Your task to perform on an android device: move a message to another label in the gmail app Image 0: 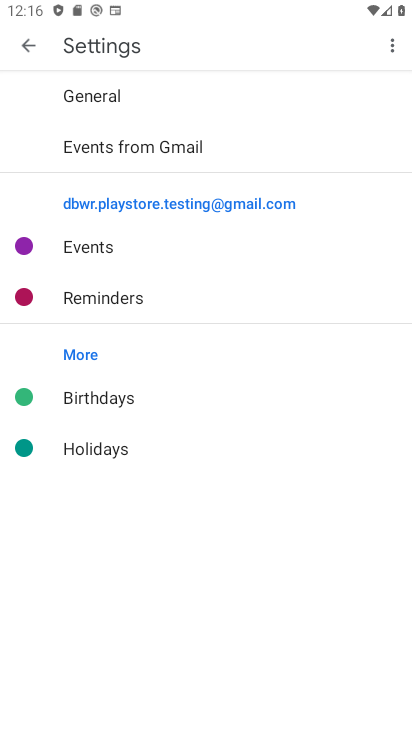
Step 0: press home button
Your task to perform on an android device: move a message to another label in the gmail app Image 1: 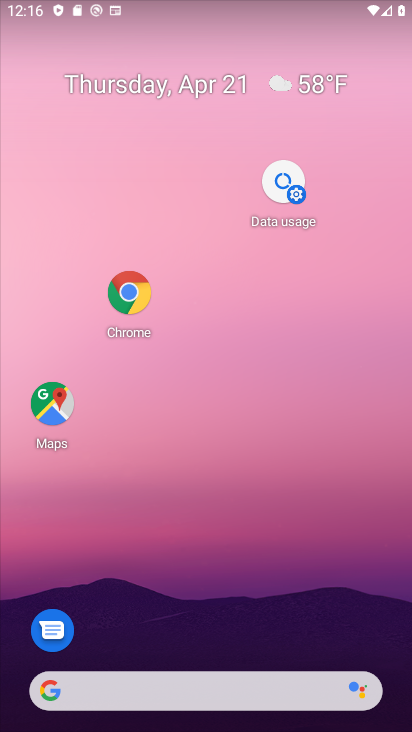
Step 1: drag from (229, 669) to (194, 349)
Your task to perform on an android device: move a message to another label in the gmail app Image 2: 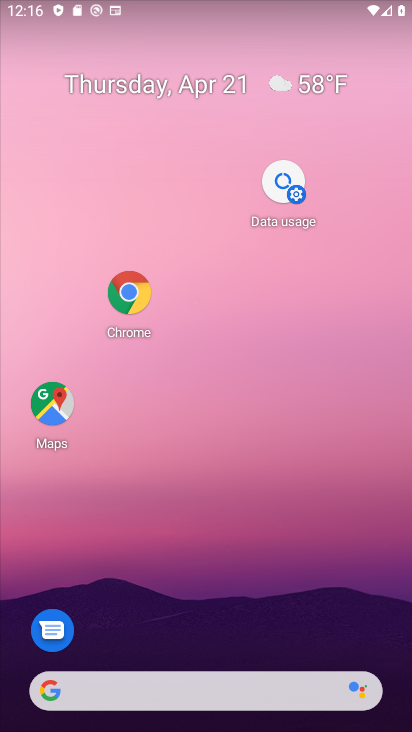
Step 2: drag from (218, 662) to (206, 207)
Your task to perform on an android device: move a message to another label in the gmail app Image 3: 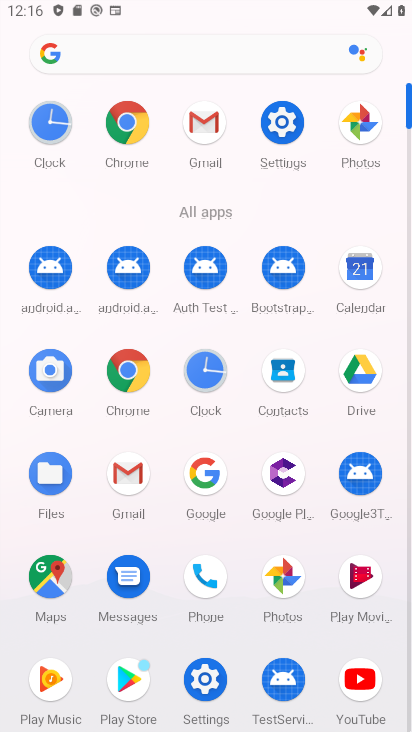
Step 3: click (216, 128)
Your task to perform on an android device: move a message to another label in the gmail app Image 4: 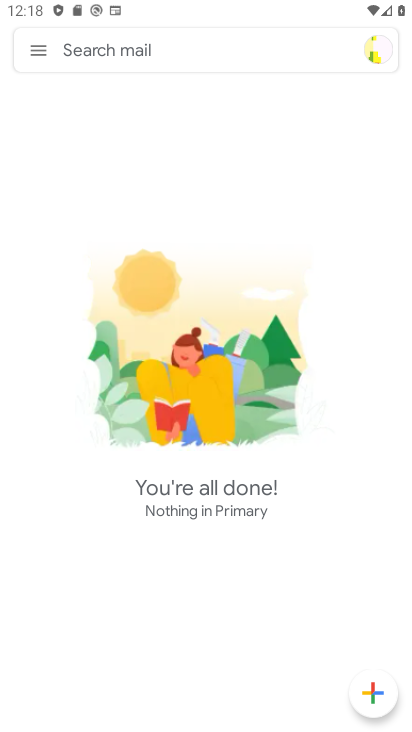
Step 4: task complete